Your task to perform on an android device: Toggle the flashlight Image 0: 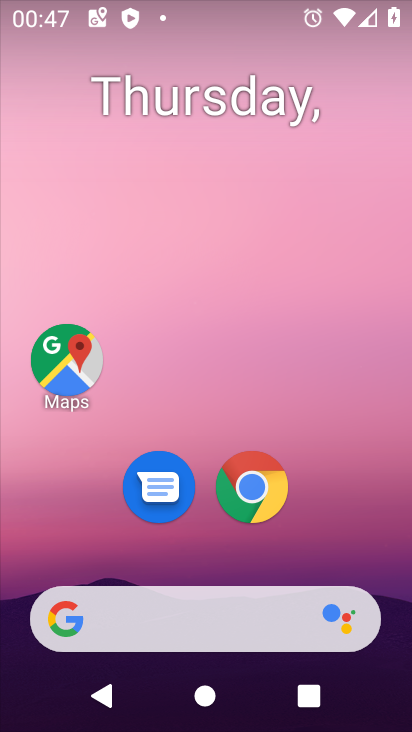
Step 0: drag from (194, 9) to (194, 651)
Your task to perform on an android device: Toggle the flashlight Image 1: 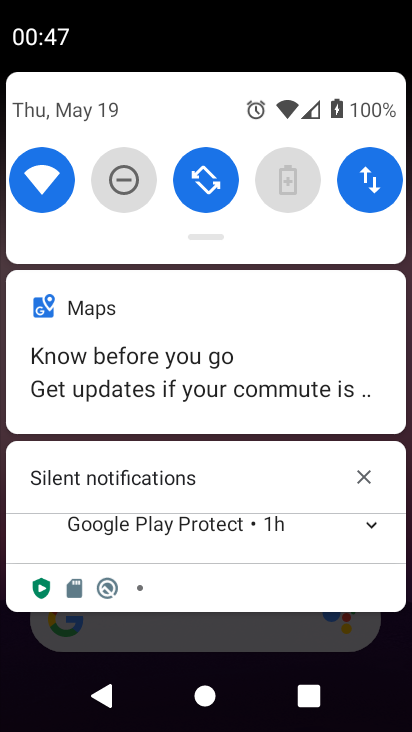
Step 1: task complete